Your task to perform on an android device: Open my contact list Image 0: 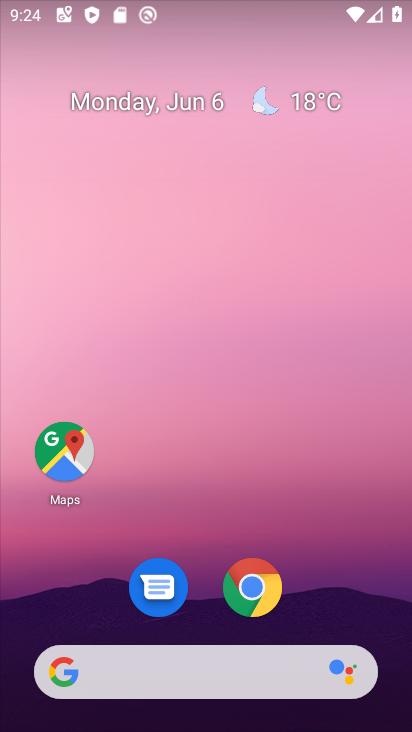
Step 0: drag from (291, 581) to (265, 115)
Your task to perform on an android device: Open my contact list Image 1: 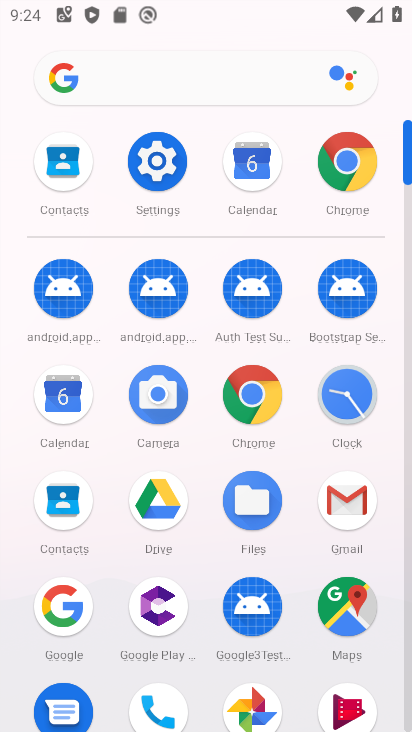
Step 1: click (59, 512)
Your task to perform on an android device: Open my contact list Image 2: 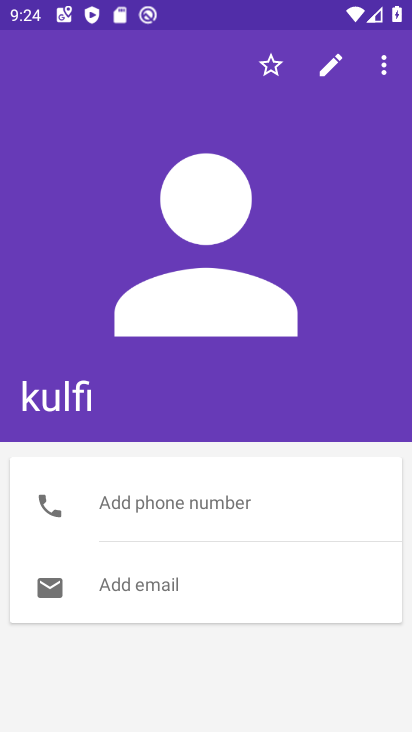
Step 2: press back button
Your task to perform on an android device: Open my contact list Image 3: 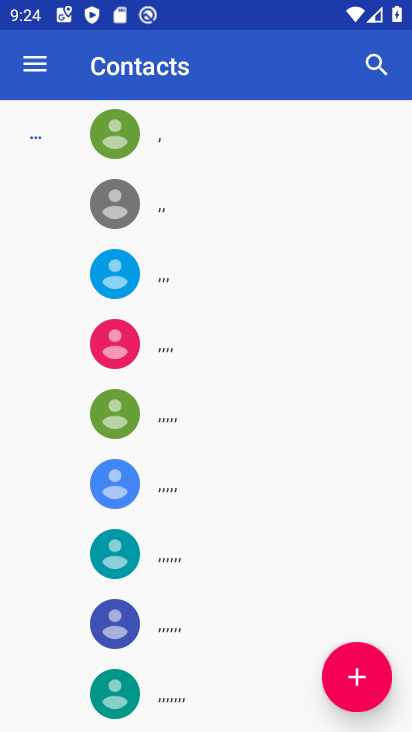
Step 3: press home button
Your task to perform on an android device: Open my contact list Image 4: 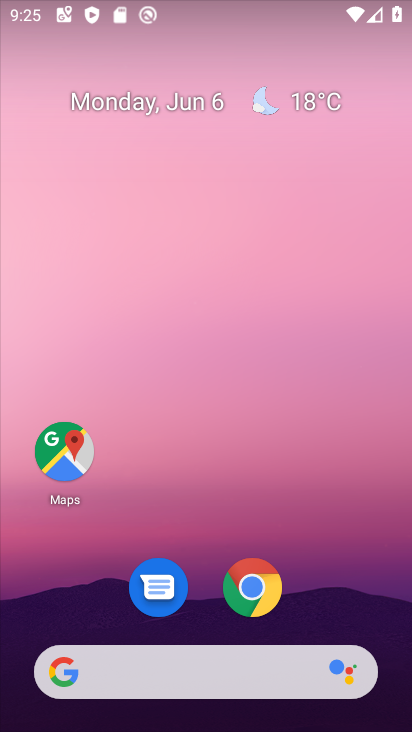
Step 4: drag from (315, 605) to (302, 127)
Your task to perform on an android device: Open my contact list Image 5: 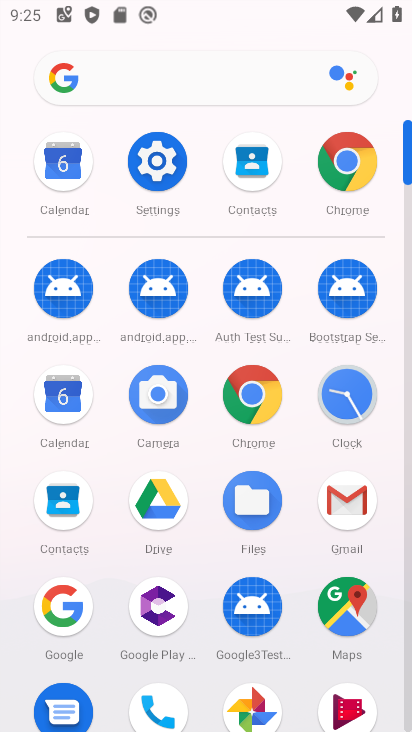
Step 5: click (60, 509)
Your task to perform on an android device: Open my contact list Image 6: 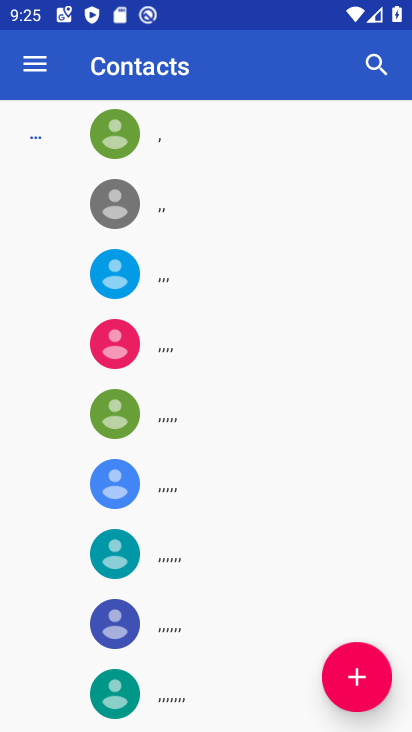
Step 6: task complete